Your task to perform on an android device: Go to network settings Image 0: 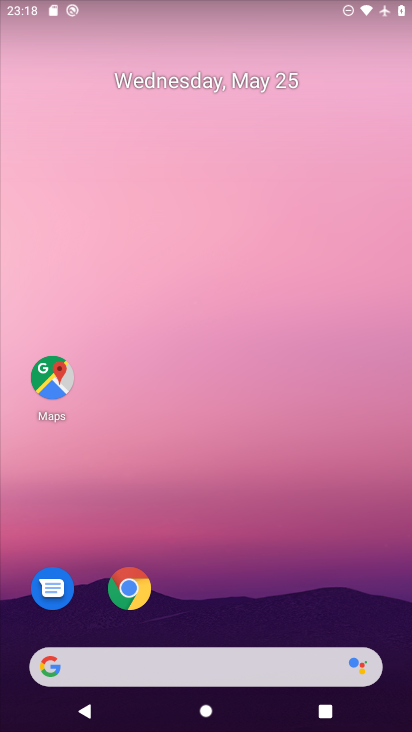
Step 0: drag from (289, 495) to (374, 38)
Your task to perform on an android device: Go to network settings Image 1: 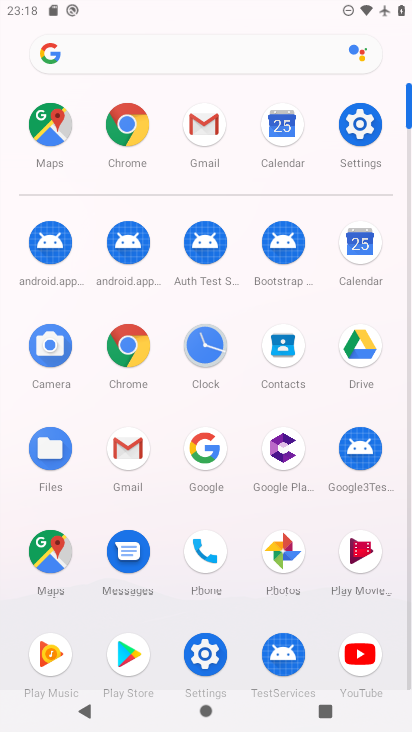
Step 1: click (360, 123)
Your task to perform on an android device: Go to network settings Image 2: 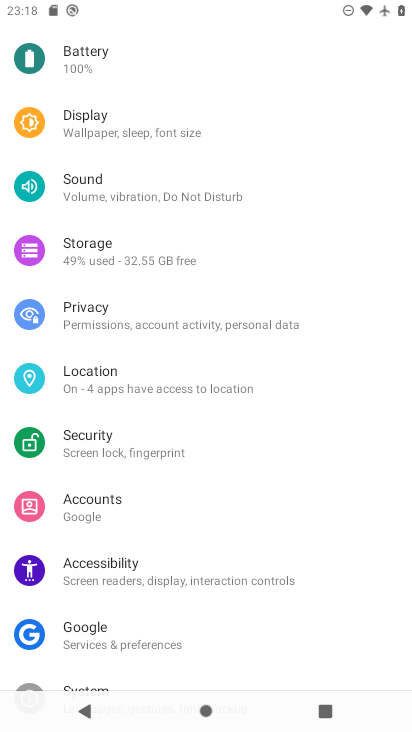
Step 2: drag from (246, 177) to (256, 658)
Your task to perform on an android device: Go to network settings Image 3: 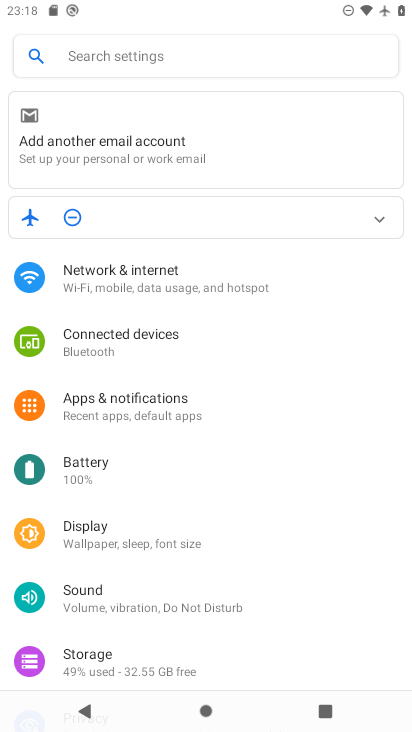
Step 3: click (155, 274)
Your task to perform on an android device: Go to network settings Image 4: 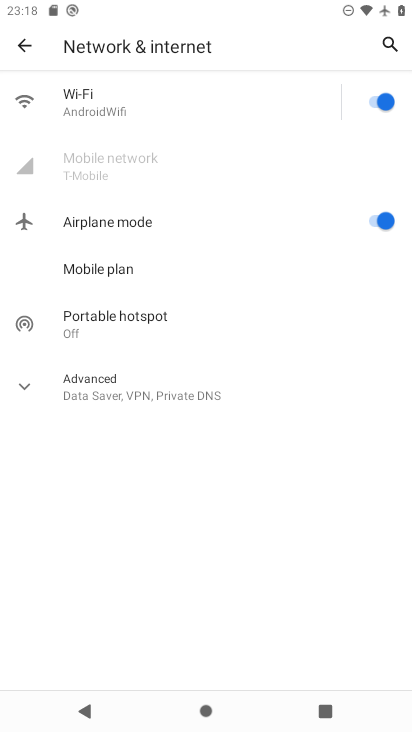
Step 4: task complete